Your task to perform on an android device: change timer sound Image 0: 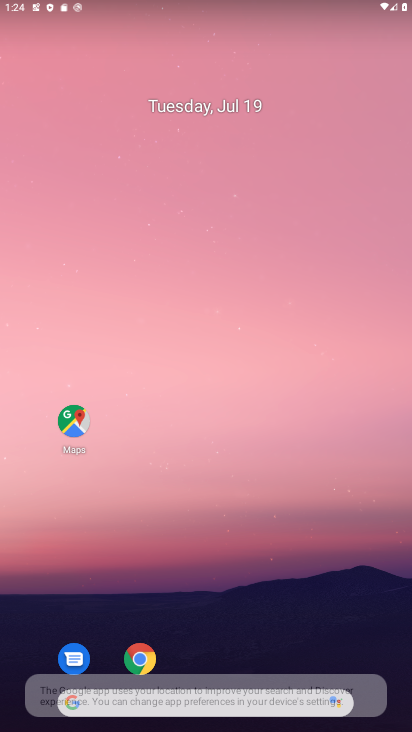
Step 0: press home button
Your task to perform on an android device: change timer sound Image 1: 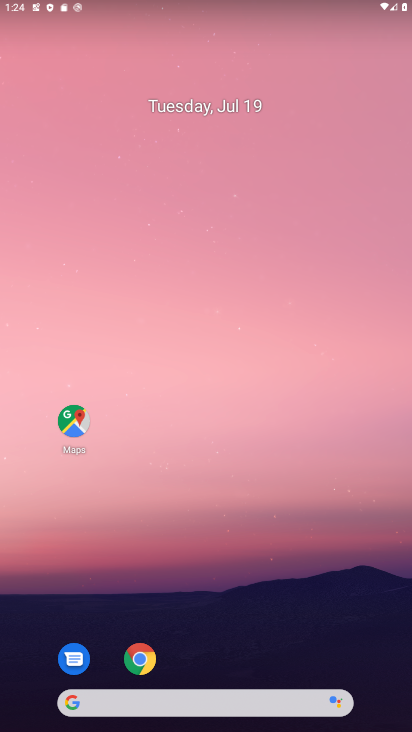
Step 1: drag from (352, 660) to (216, 117)
Your task to perform on an android device: change timer sound Image 2: 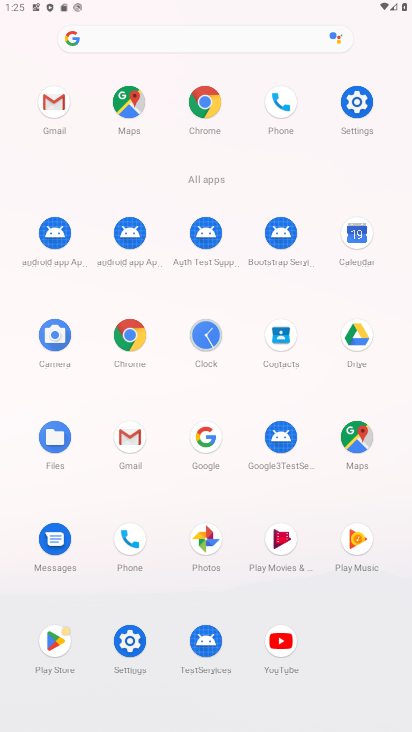
Step 2: click (216, 357)
Your task to perform on an android device: change timer sound Image 3: 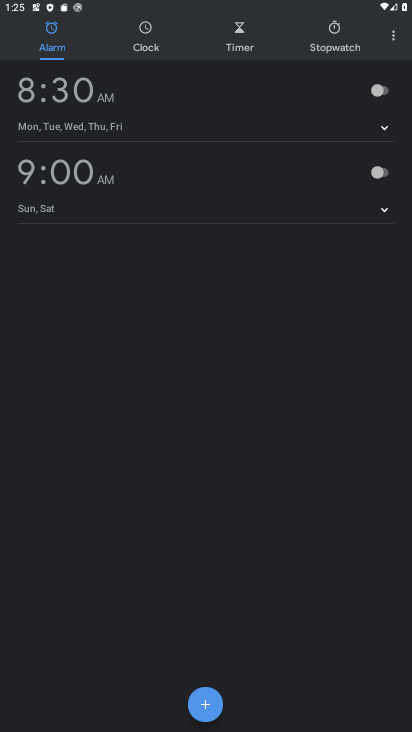
Step 3: click (400, 53)
Your task to perform on an android device: change timer sound Image 4: 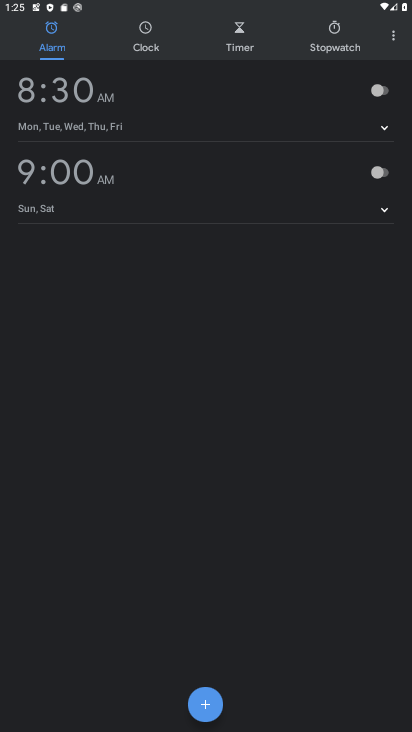
Step 4: click (398, 39)
Your task to perform on an android device: change timer sound Image 5: 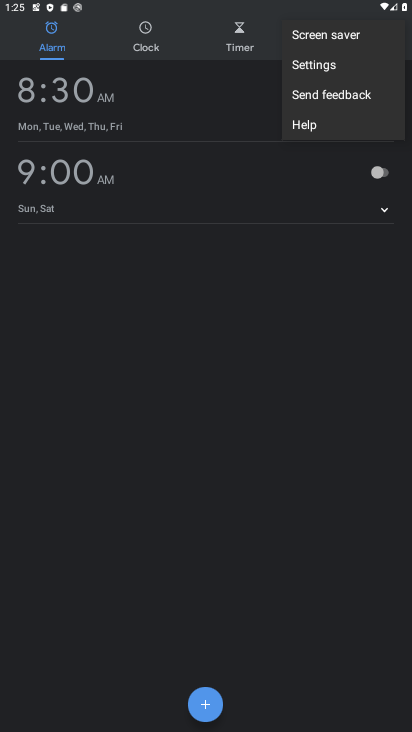
Step 5: click (312, 74)
Your task to perform on an android device: change timer sound Image 6: 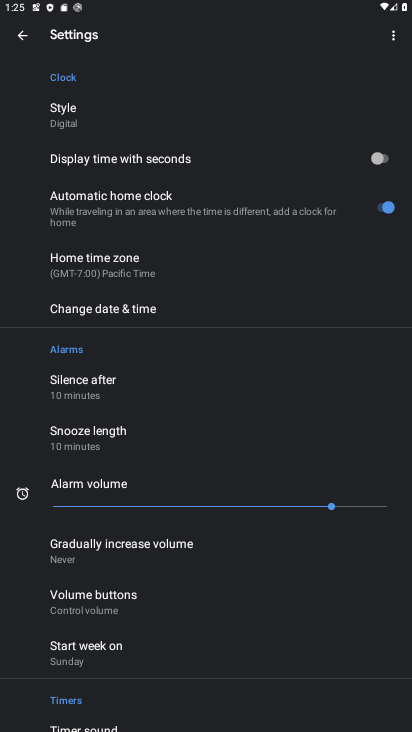
Step 6: drag from (135, 610) to (180, 712)
Your task to perform on an android device: change timer sound Image 7: 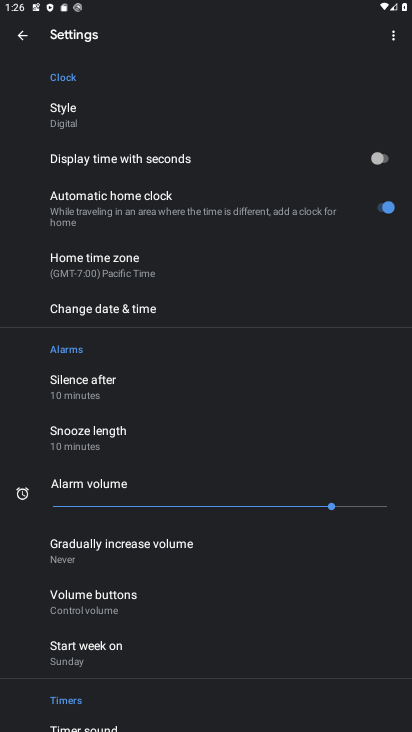
Step 7: drag from (149, 587) to (142, 139)
Your task to perform on an android device: change timer sound Image 8: 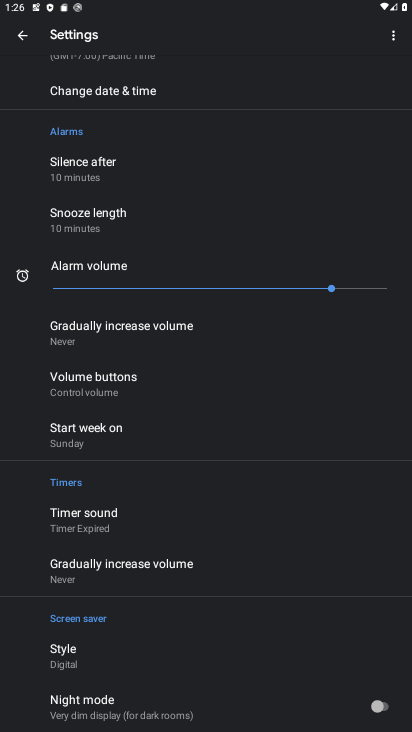
Step 8: click (112, 523)
Your task to perform on an android device: change timer sound Image 9: 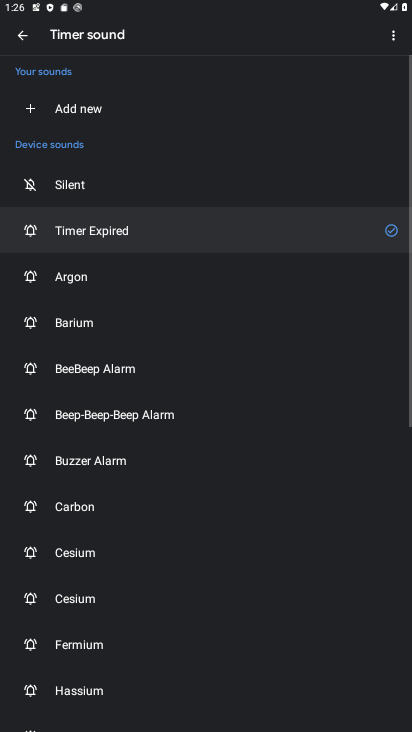
Step 9: click (82, 304)
Your task to perform on an android device: change timer sound Image 10: 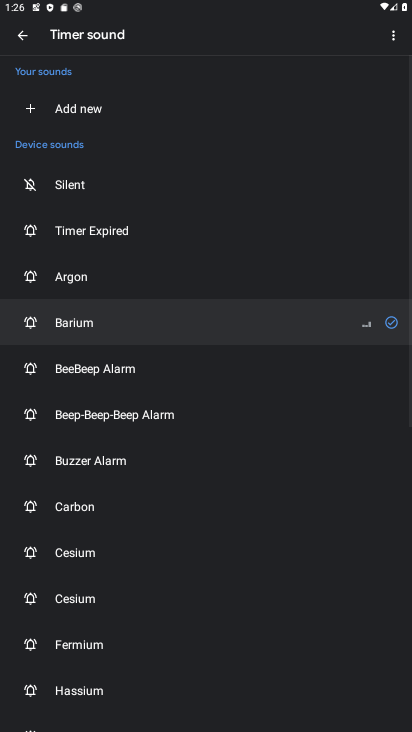
Step 10: task complete